Your task to perform on an android device: What's on my calendar today? Image 0: 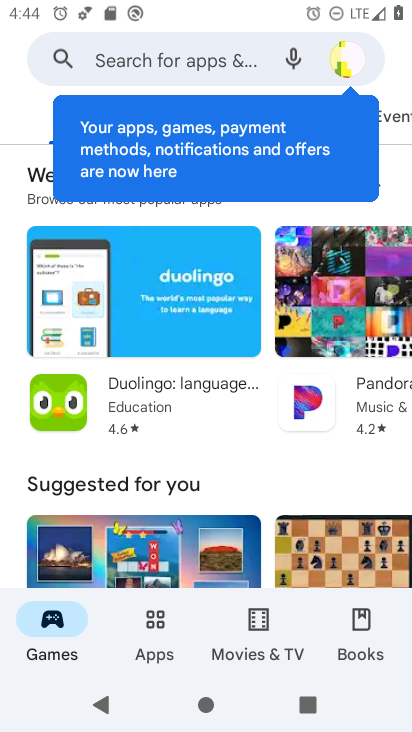
Step 0: press home button
Your task to perform on an android device: What's on my calendar today? Image 1: 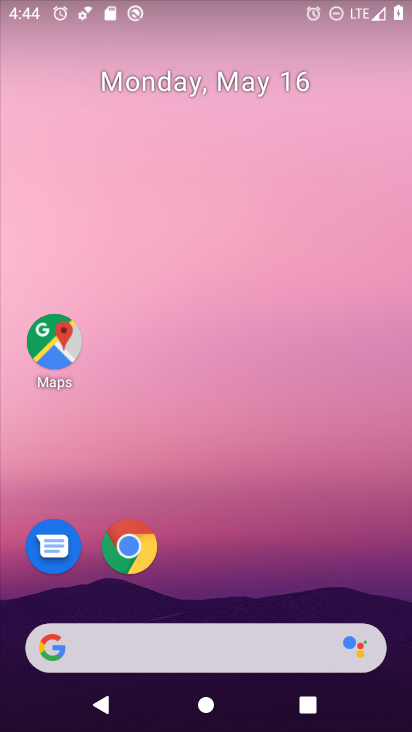
Step 1: drag from (353, 586) to (354, 98)
Your task to perform on an android device: What's on my calendar today? Image 2: 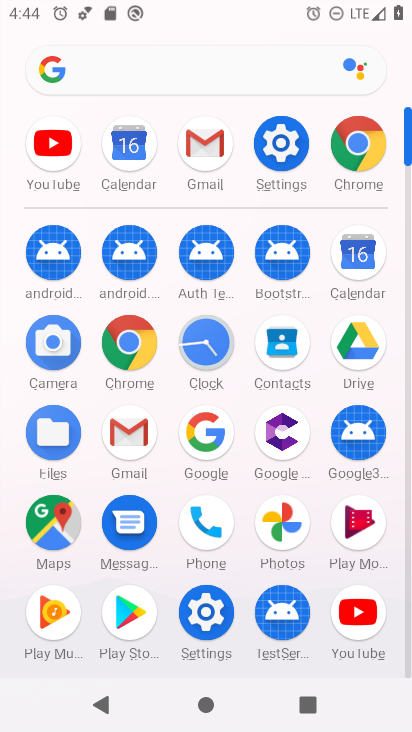
Step 2: click (368, 265)
Your task to perform on an android device: What's on my calendar today? Image 3: 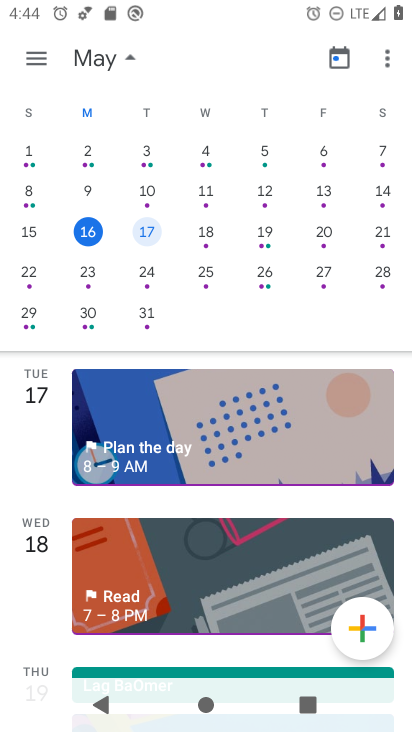
Step 3: click (75, 231)
Your task to perform on an android device: What's on my calendar today? Image 4: 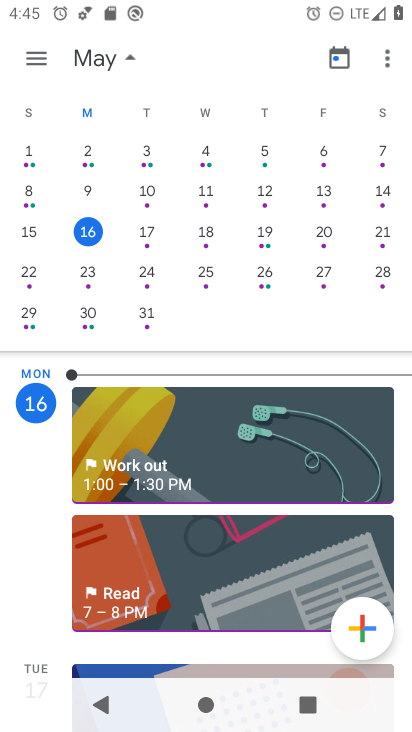
Step 4: task complete